Your task to perform on an android device: turn on the 24-hour format for clock Image 0: 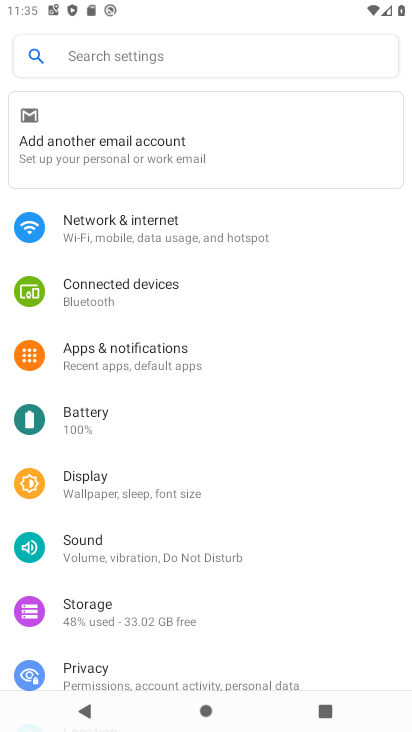
Step 0: press home button
Your task to perform on an android device: turn on the 24-hour format for clock Image 1: 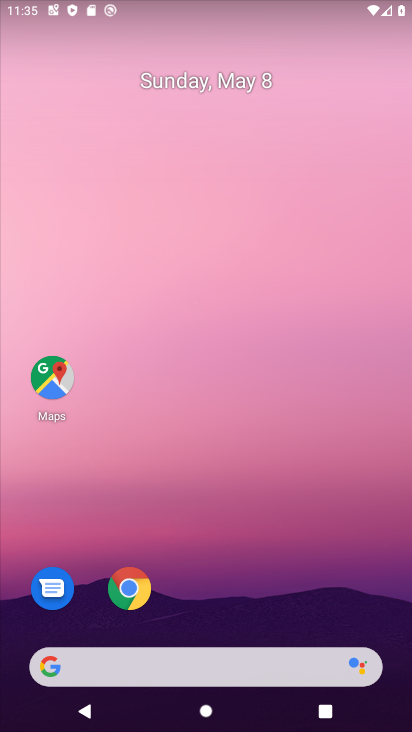
Step 1: drag from (237, 557) to (121, 70)
Your task to perform on an android device: turn on the 24-hour format for clock Image 2: 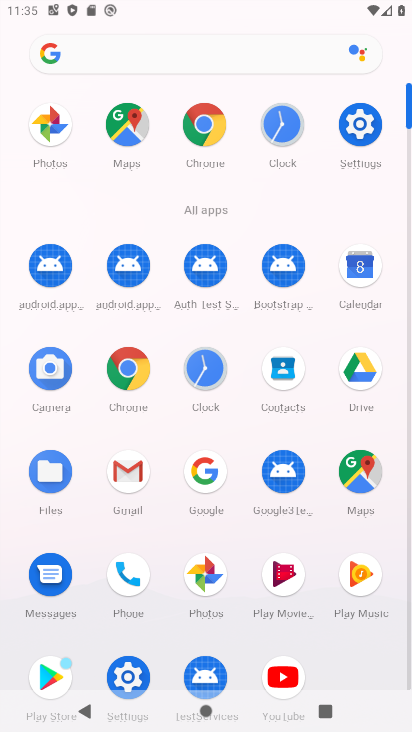
Step 2: click (205, 376)
Your task to perform on an android device: turn on the 24-hour format for clock Image 3: 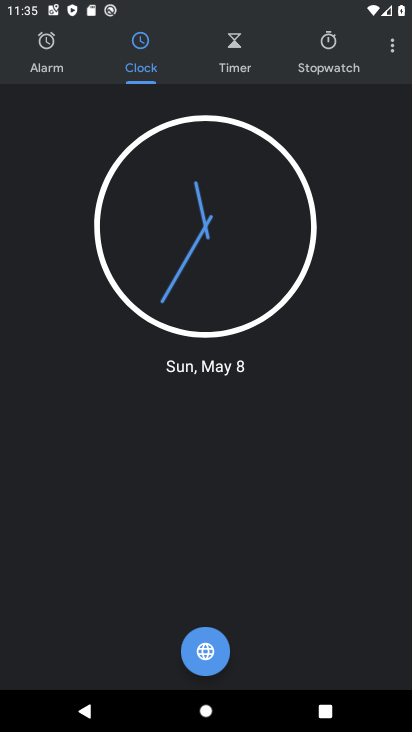
Step 3: click (391, 43)
Your task to perform on an android device: turn on the 24-hour format for clock Image 4: 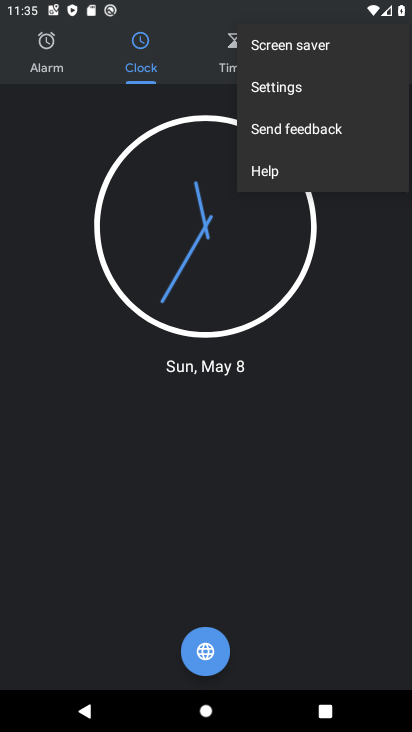
Step 4: click (283, 91)
Your task to perform on an android device: turn on the 24-hour format for clock Image 5: 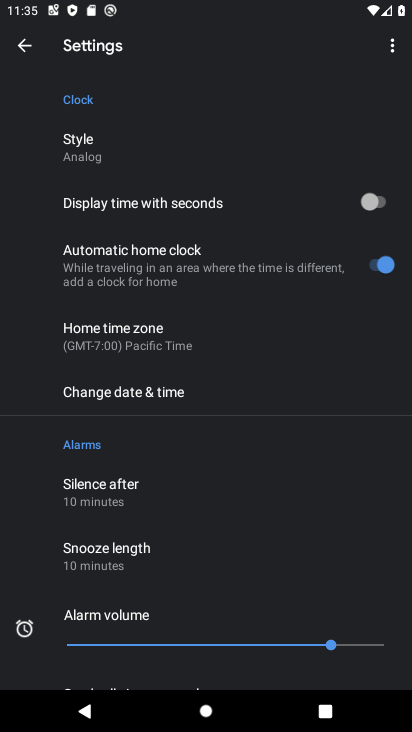
Step 5: click (131, 393)
Your task to perform on an android device: turn on the 24-hour format for clock Image 6: 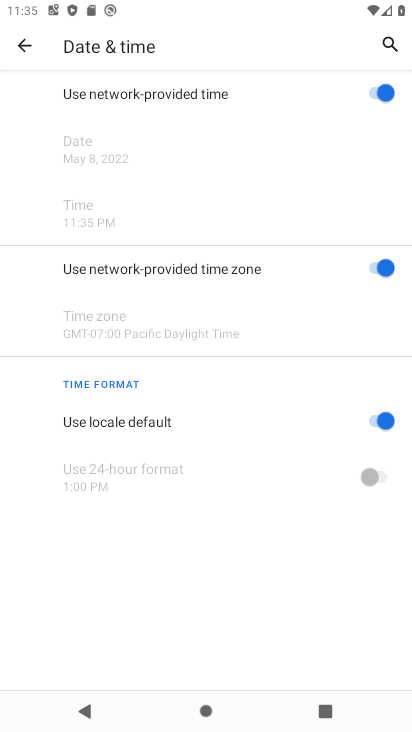
Step 6: click (380, 426)
Your task to perform on an android device: turn on the 24-hour format for clock Image 7: 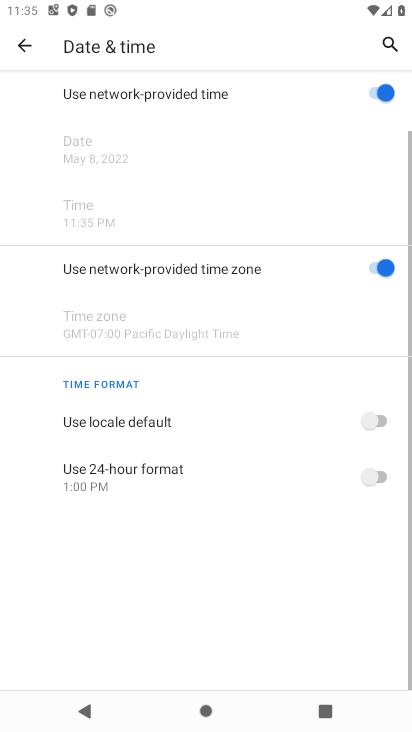
Step 7: click (369, 476)
Your task to perform on an android device: turn on the 24-hour format for clock Image 8: 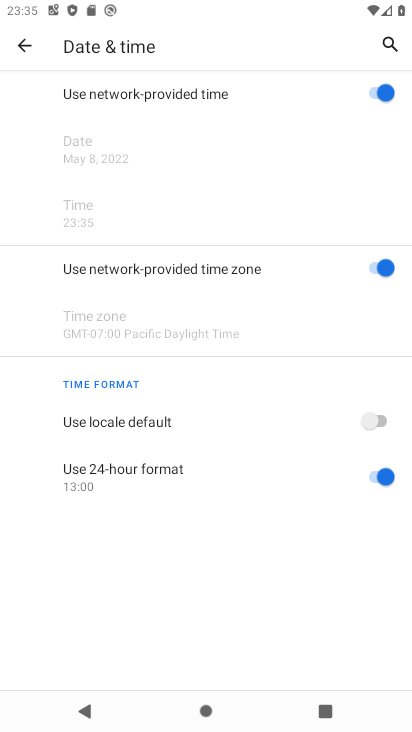
Step 8: task complete